Your task to perform on an android device: add a contact in the contacts app Image 0: 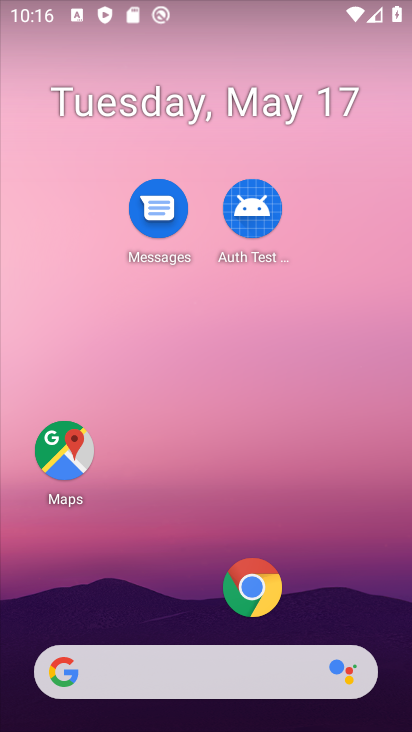
Step 0: drag from (201, 587) to (188, 158)
Your task to perform on an android device: add a contact in the contacts app Image 1: 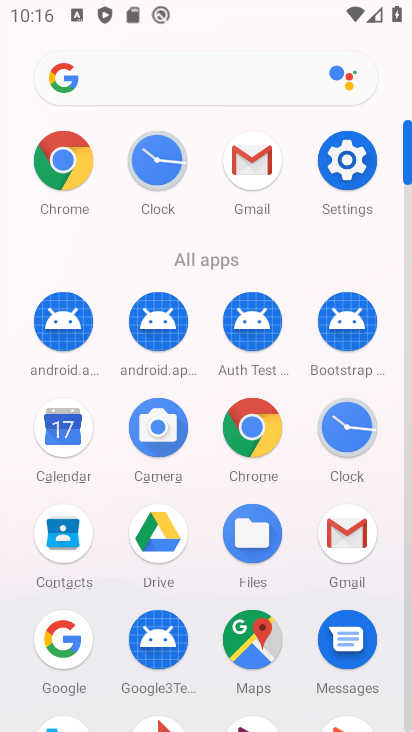
Step 1: click (67, 551)
Your task to perform on an android device: add a contact in the contacts app Image 2: 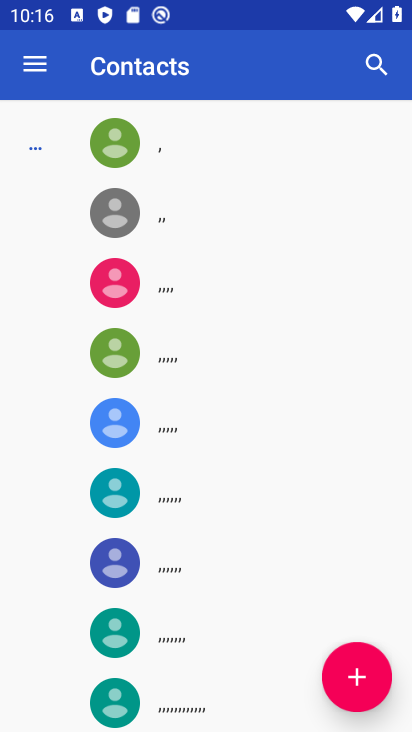
Step 2: click (335, 694)
Your task to perform on an android device: add a contact in the contacts app Image 3: 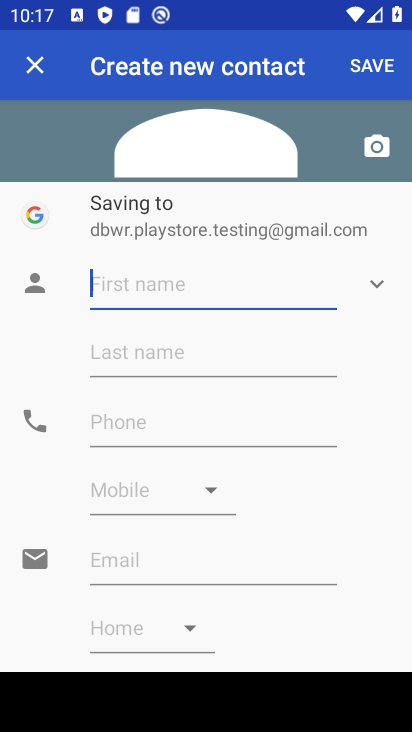
Step 3: type "fdytedytdr"
Your task to perform on an android device: add a contact in the contacts app Image 4: 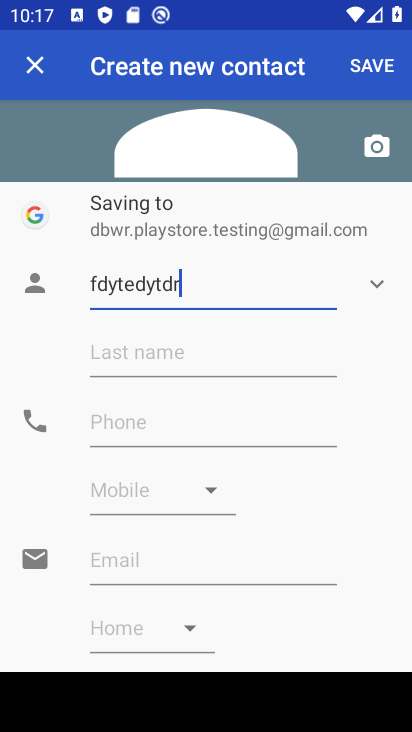
Step 4: type ""
Your task to perform on an android device: add a contact in the contacts app Image 5: 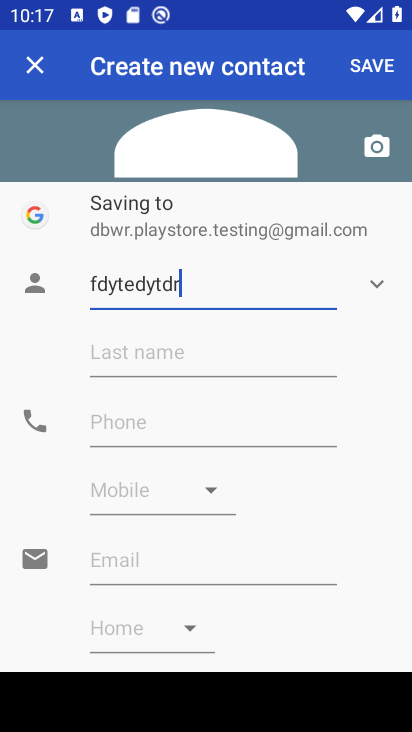
Step 5: click (381, 69)
Your task to perform on an android device: add a contact in the contacts app Image 6: 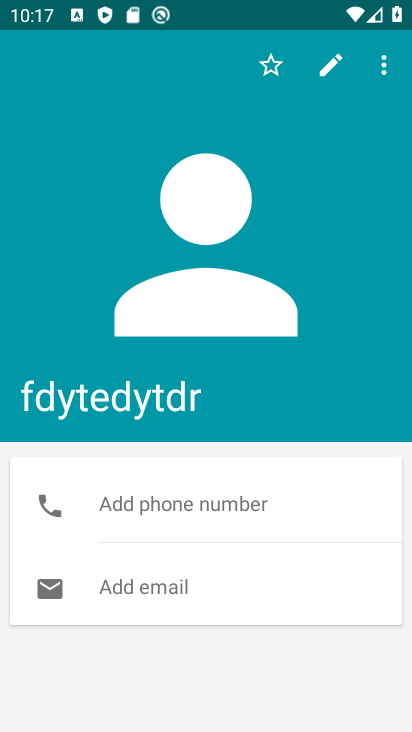
Step 6: task complete